Your task to perform on an android device: uninstall "Duolingo: language lessons" Image 0: 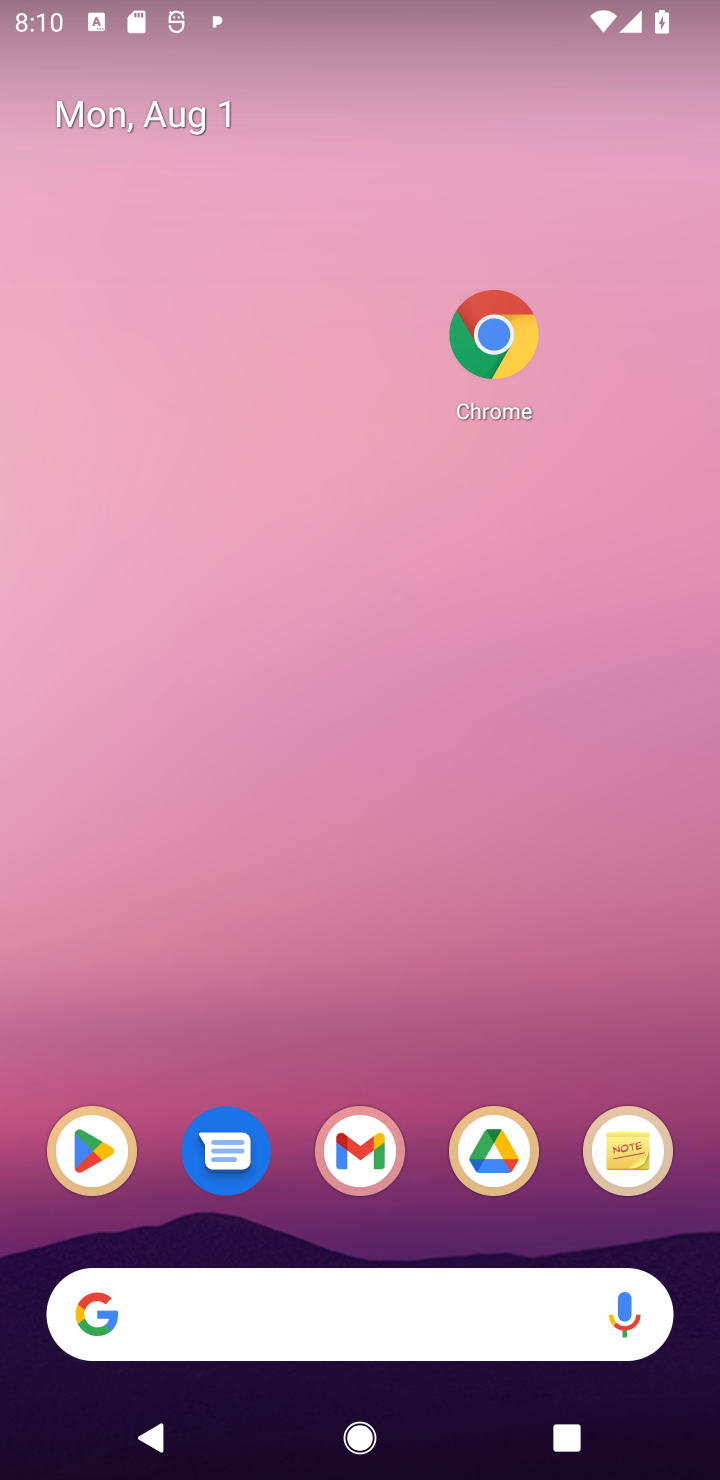
Step 0: click (94, 1155)
Your task to perform on an android device: uninstall "Duolingo: language lessons" Image 1: 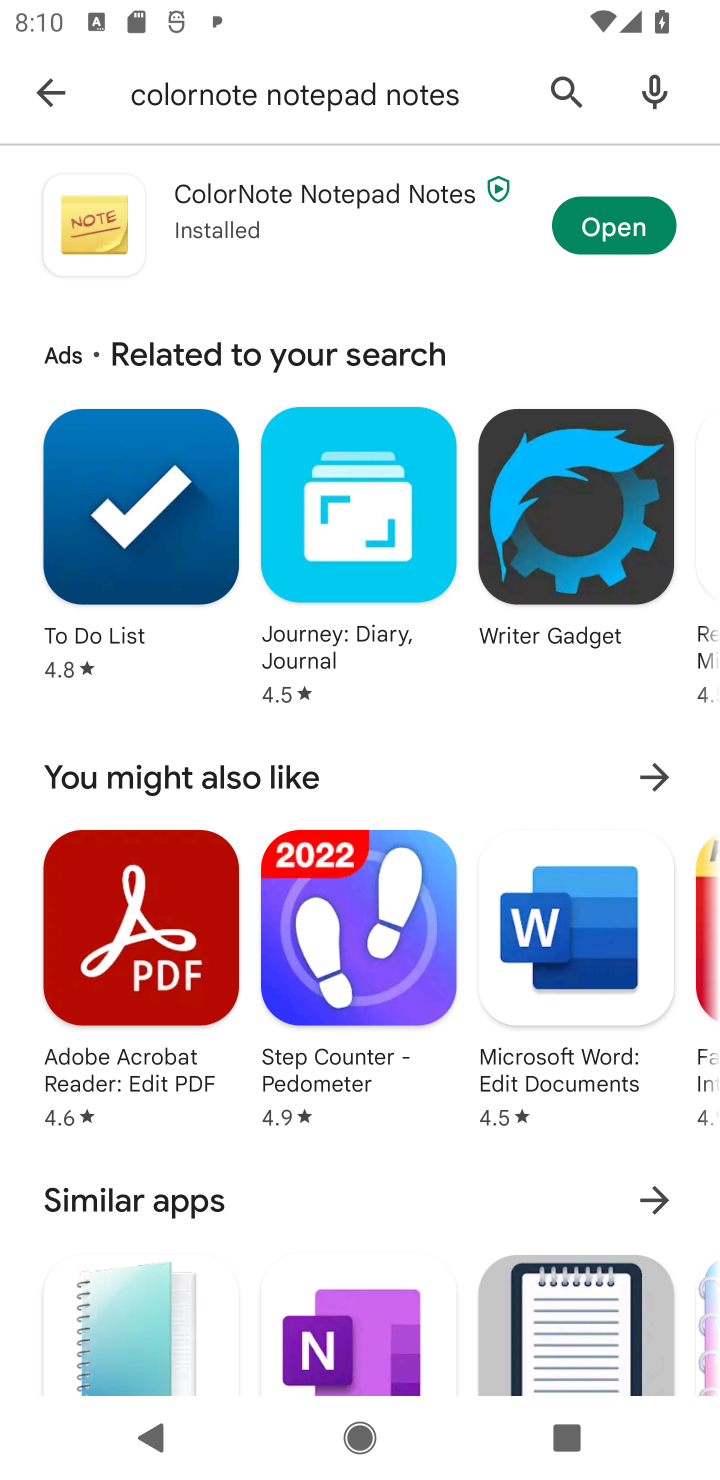
Step 1: click (555, 84)
Your task to perform on an android device: uninstall "Duolingo: language lessons" Image 2: 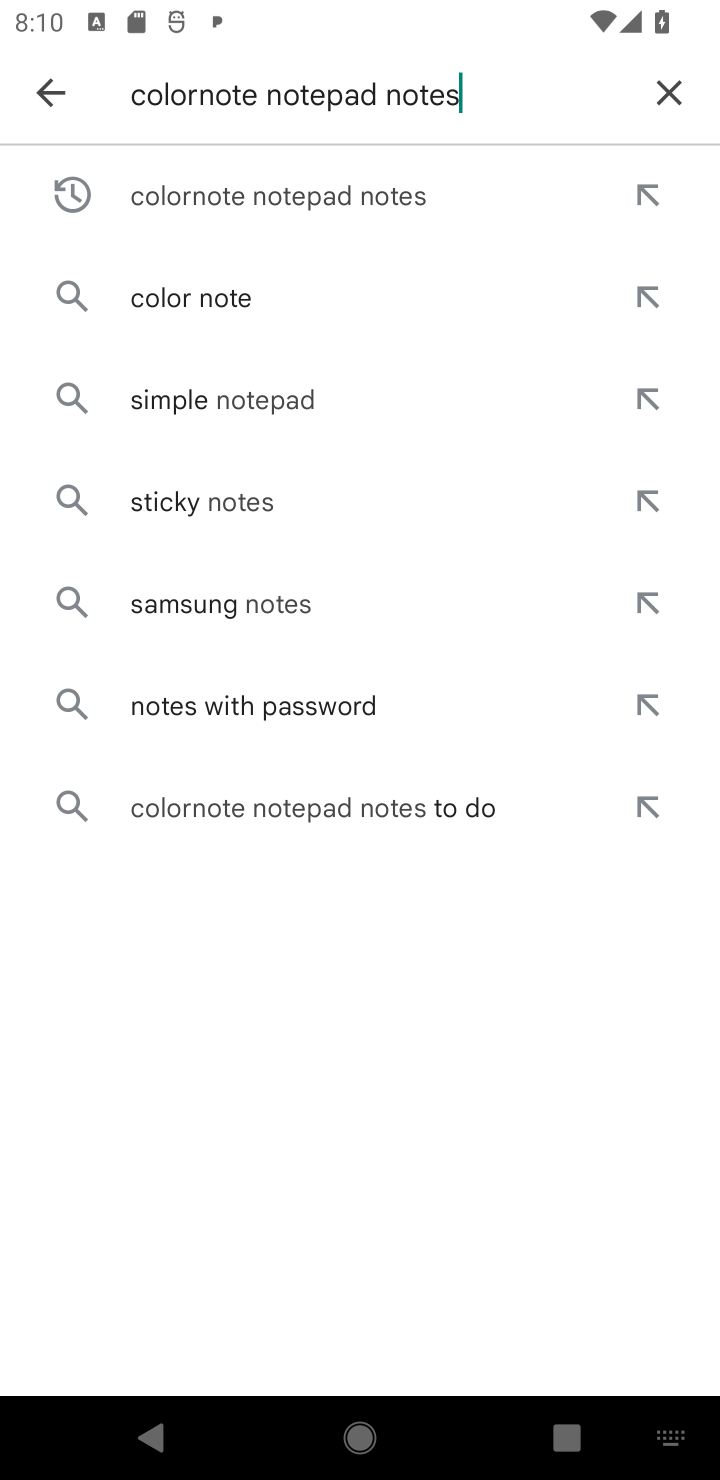
Step 2: click (651, 98)
Your task to perform on an android device: uninstall "Duolingo: language lessons" Image 3: 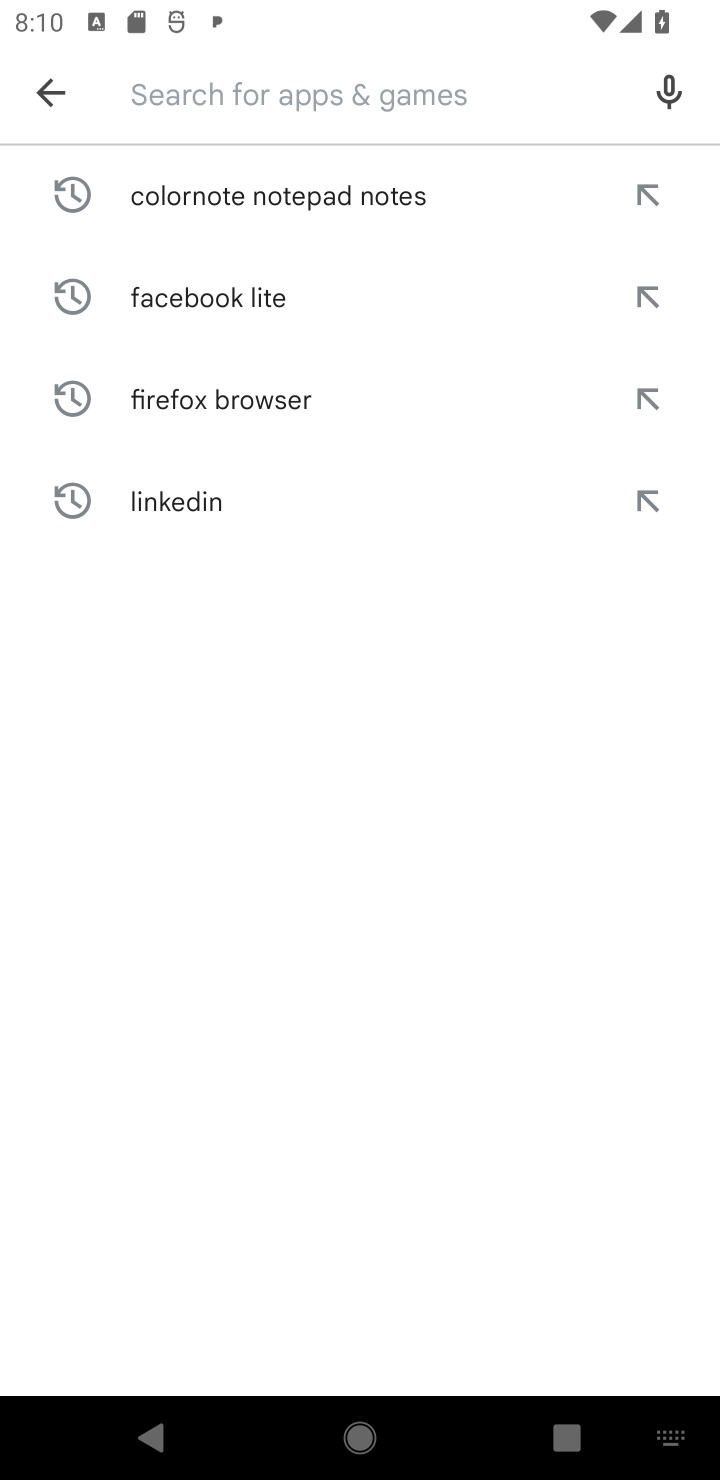
Step 3: type "Duolingo: language lessons"
Your task to perform on an android device: uninstall "Duolingo: language lessons" Image 4: 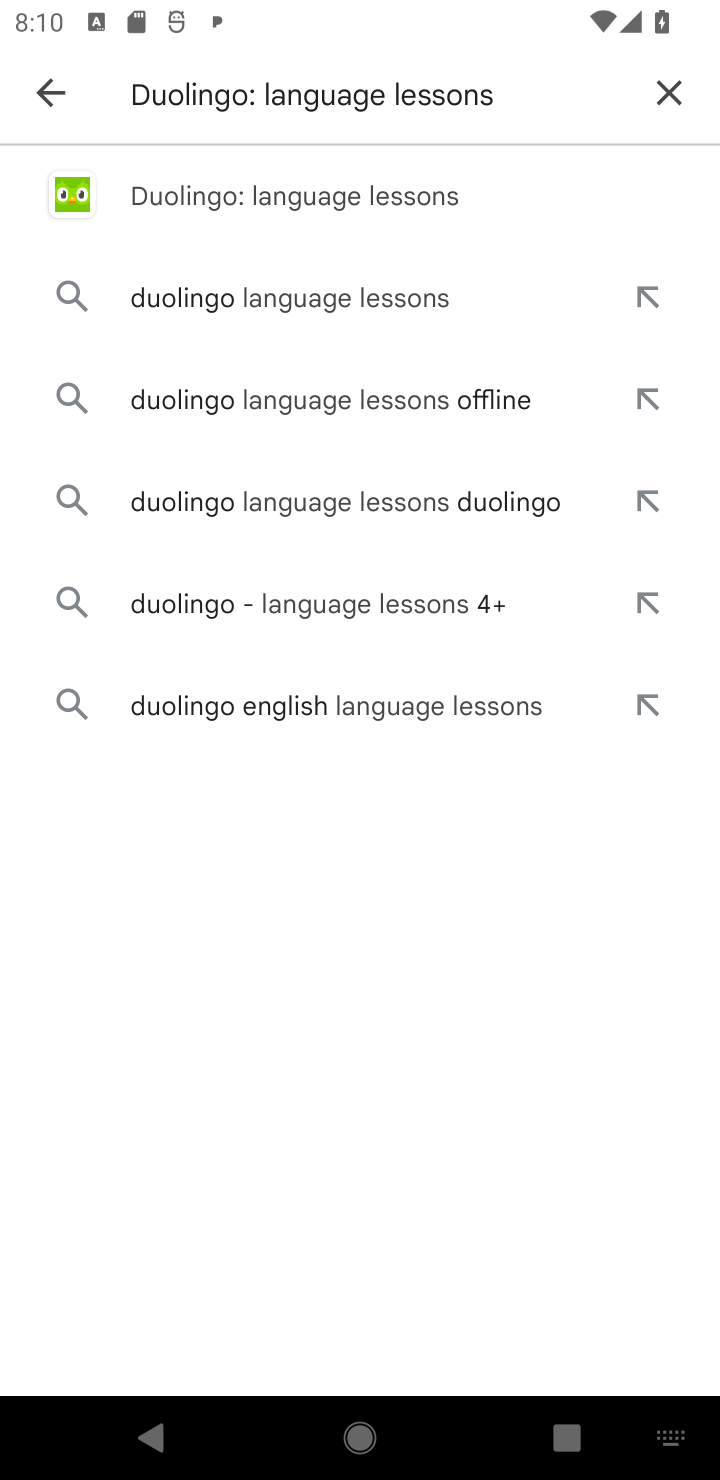
Step 4: click (317, 106)
Your task to perform on an android device: uninstall "Duolingo: language lessons" Image 5: 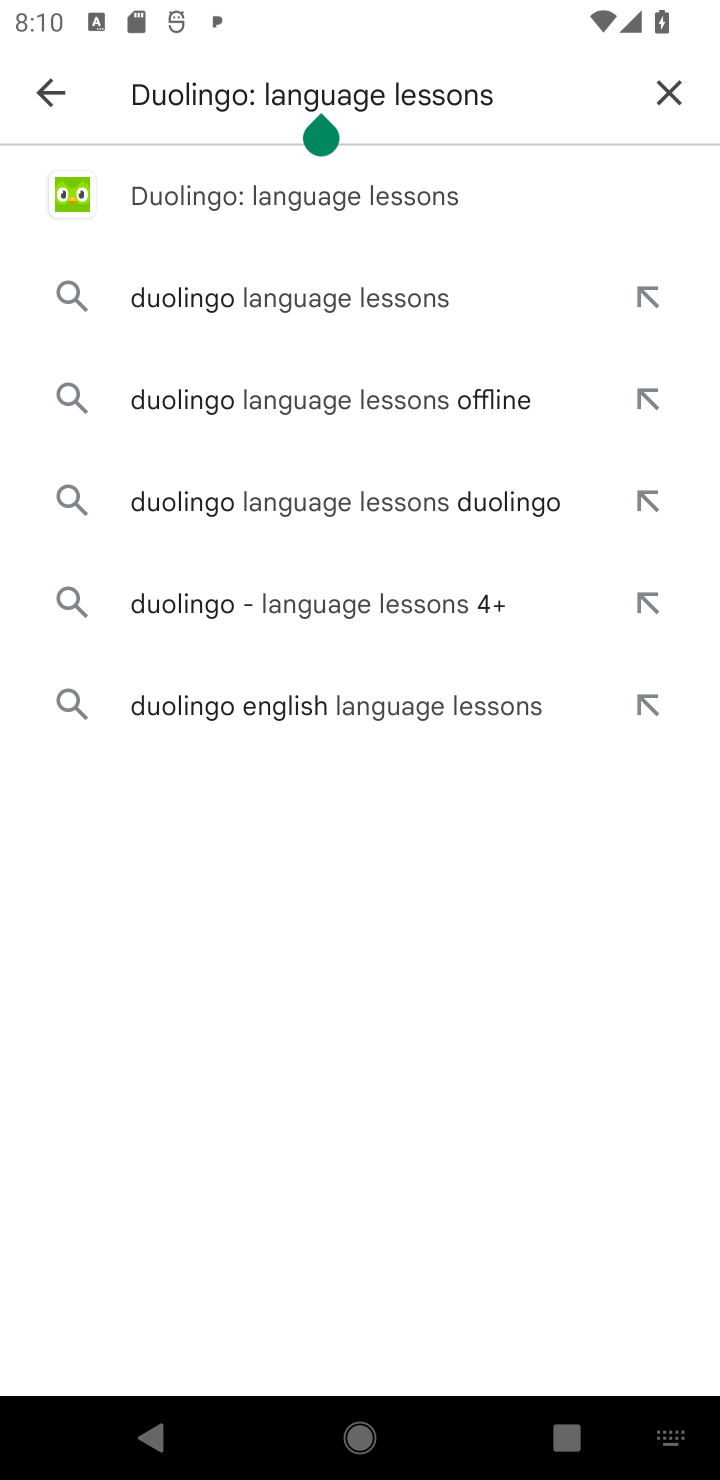
Step 5: click (301, 217)
Your task to perform on an android device: uninstall "Duolingo: language lessons" Image 6: 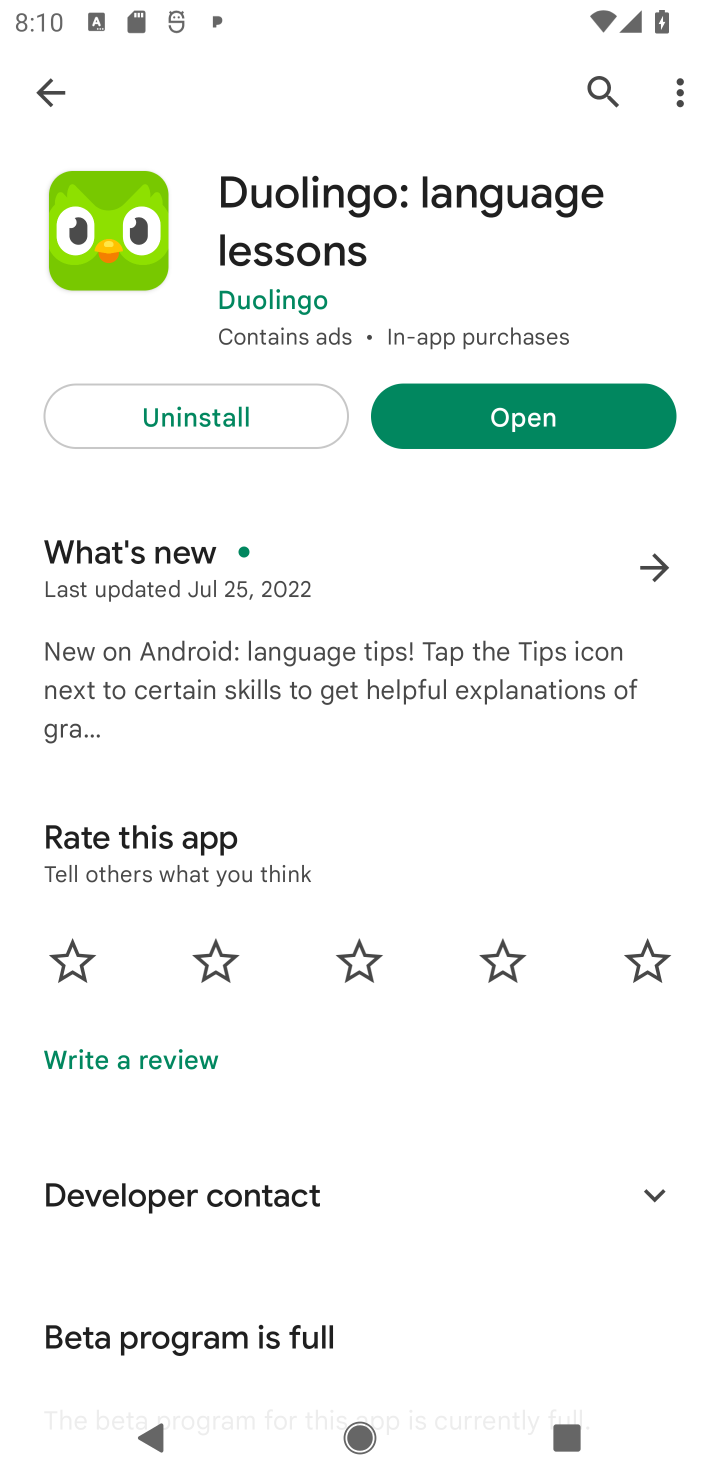
Step 6: click (176, 387)
Your task to perform on an android device: uninstall "Duolingo: language lessons" Image 7: 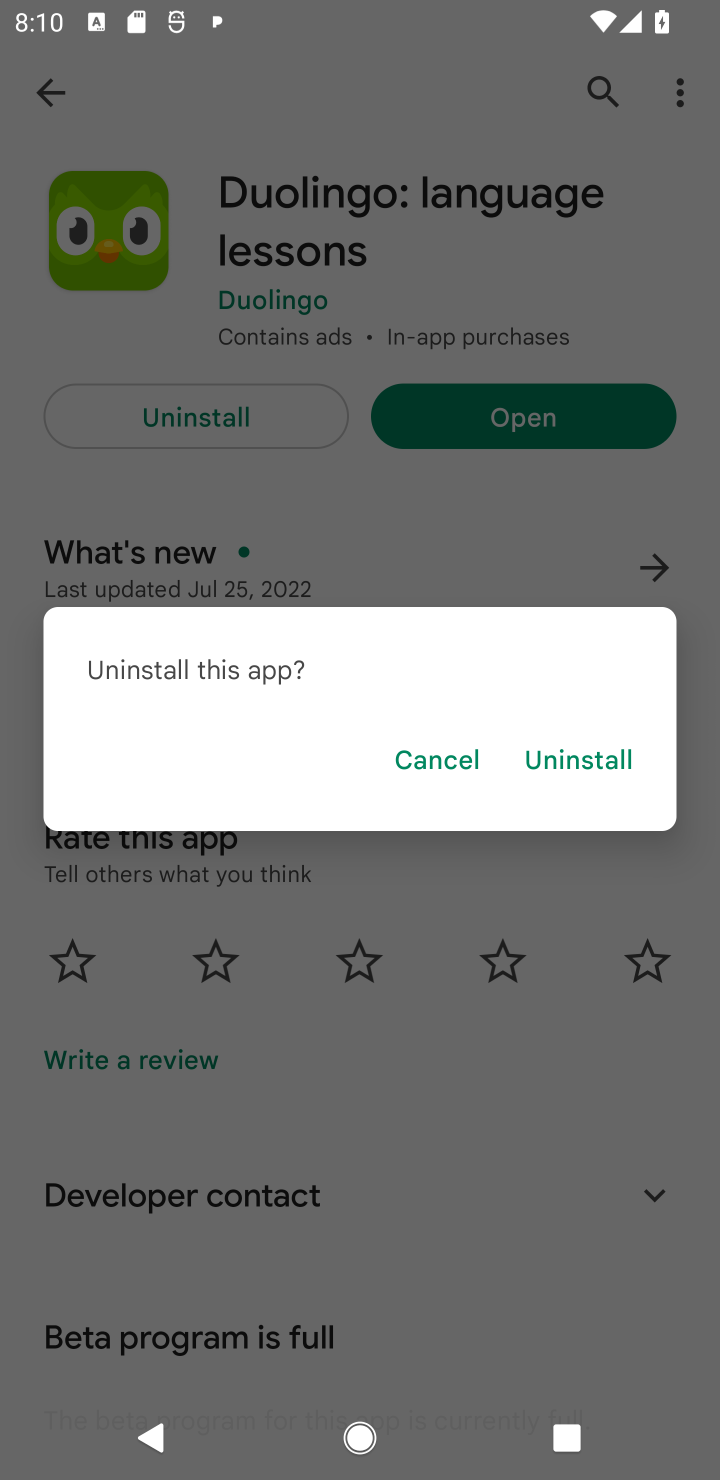
Step 7: click (541, 762)
Your task to perform on an android device: uninstall "Duolingo: language lessons" Image 8: 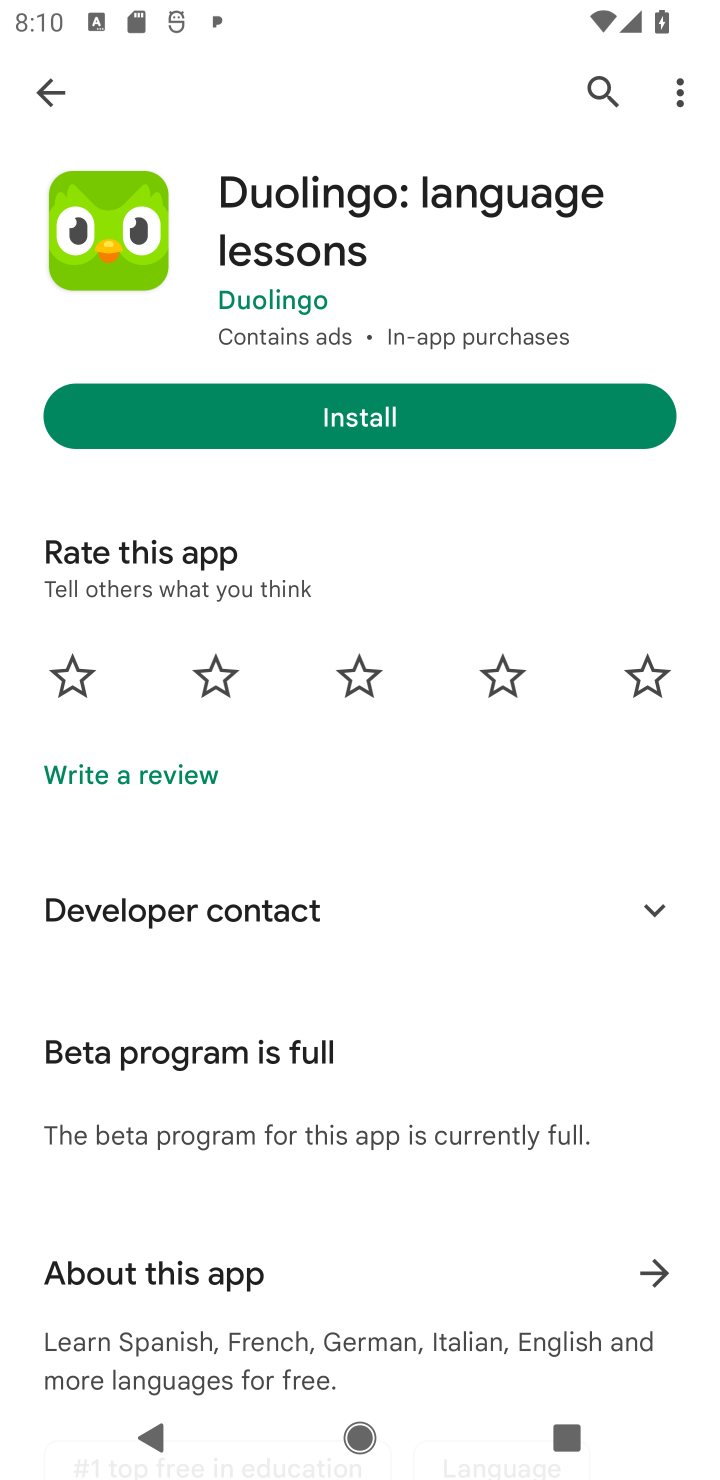
Step 8: task complete